Your task to perform on an android device: set default search engine in the chrome app Image 0: 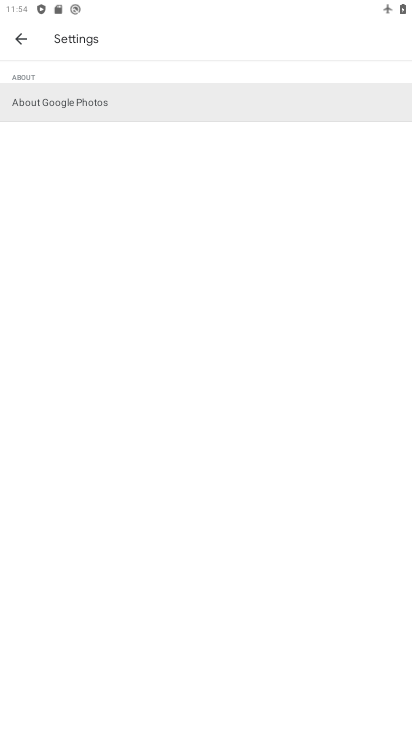
Step 0: press home button
Your task to perform on an android device: set default search engine in the chrome app Image 1: 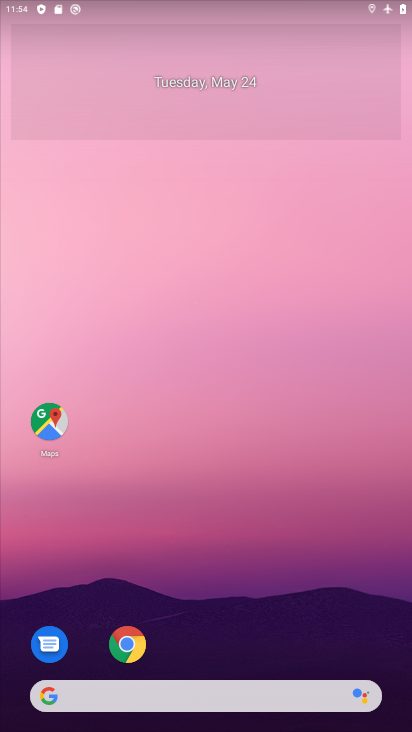
Step 1: click (118, 648)
Your task to perform on an android device: set default search engine in the chrome app Image 2: 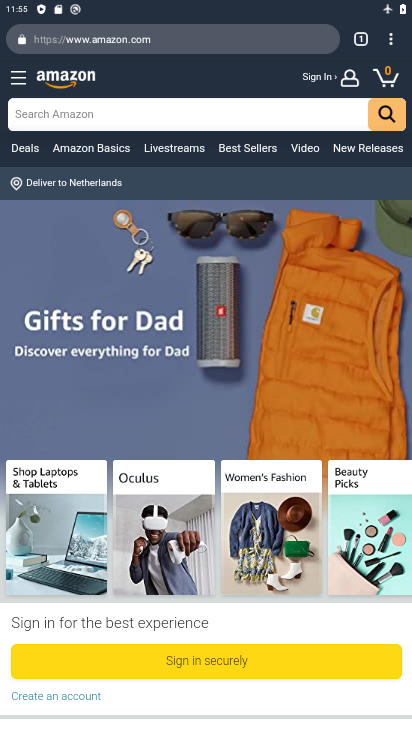
Step 2: click (390, 37)
Your task to perform on an android device: set default search engine in the chrome app Image 3: 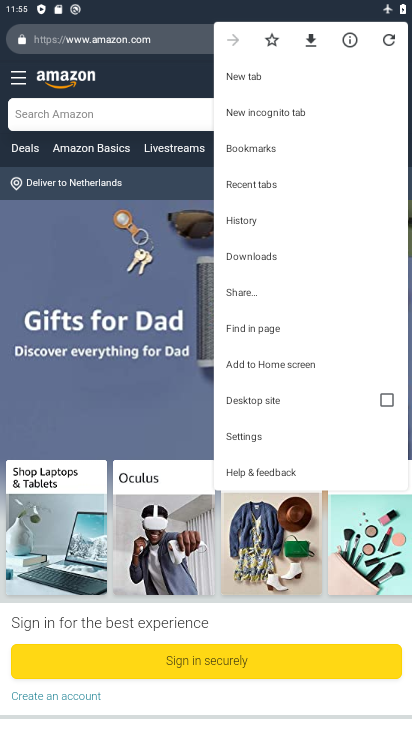
Step 3: click (246, 433)
Your task to perform on an android device: set default search engine in the chrome app Image 4: 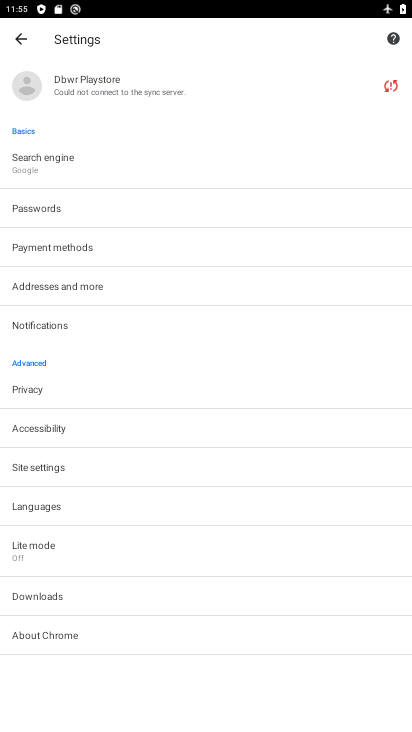
Step 4: click (54, 160)
Your task to perform on an android device: set default search engine in the chrome app Image 5: 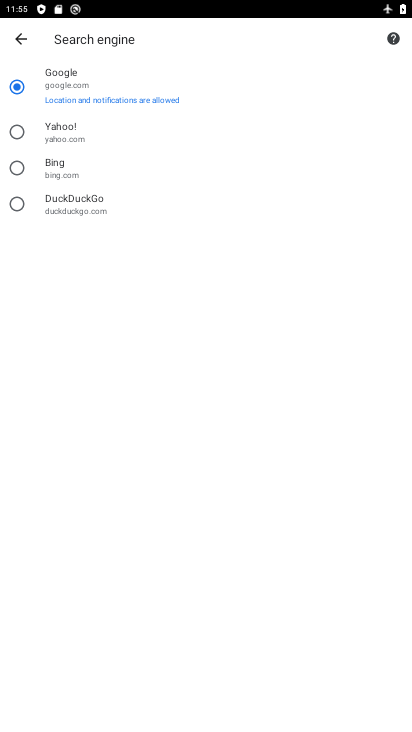
Step 5: click (16, 125)
Your task to perform on an android device: set default search engine in the chrome app Image 6: 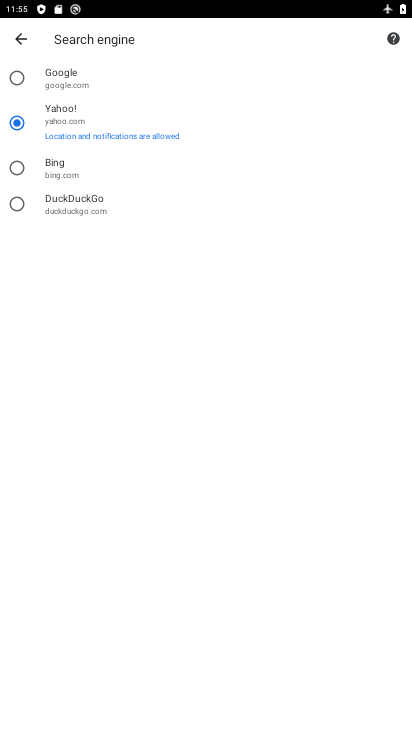
Step 6: task complete